Your task to perform on an android device: move an email to a new category in the gmail app Image 0: 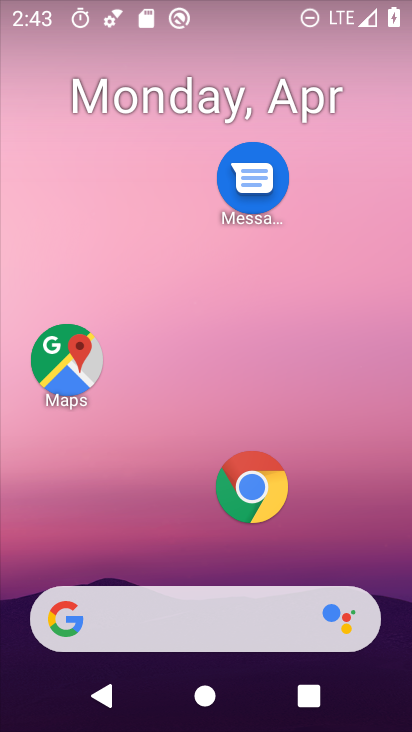
Step 0: drag from (170, 552) to (197, 3)
Your task to perform on an android device: move an email to a new category in the gmail app Image 1: 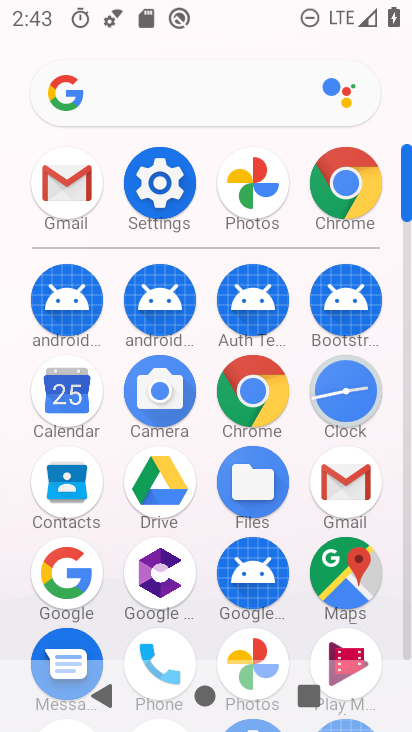
Step 1: click (345, 493)
Your task to perform on an android device: move an email to a new category in the gmail app Image 2: 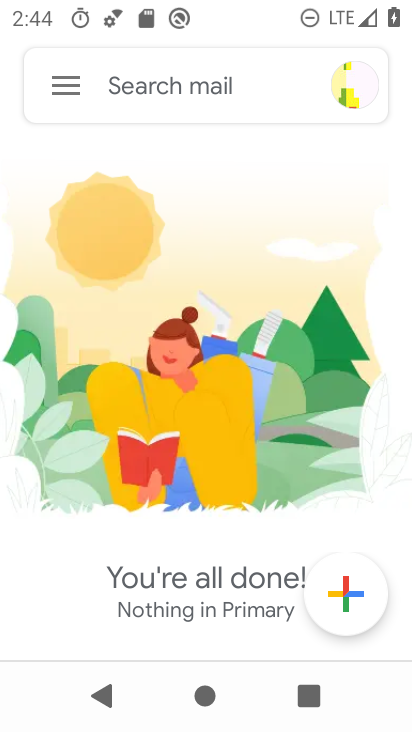
Step 2: task complete